Your task to perform on an android device: Search for Mexican restaurants on Maps Image 0: 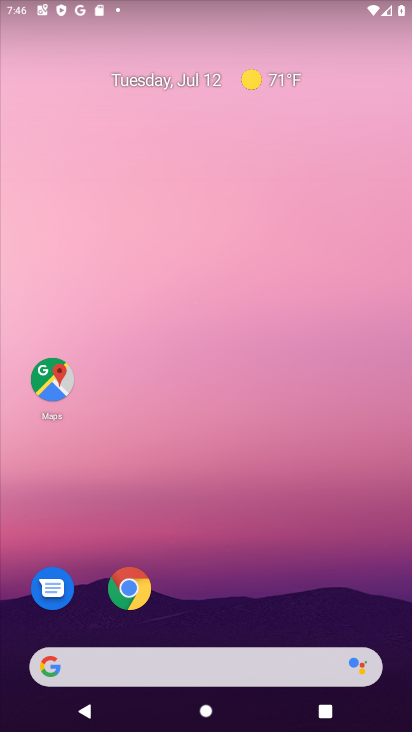
Step 0: click (43, 388)
Your task to perform on an android device: Search for Mexican restaurants on Maps Image 1: 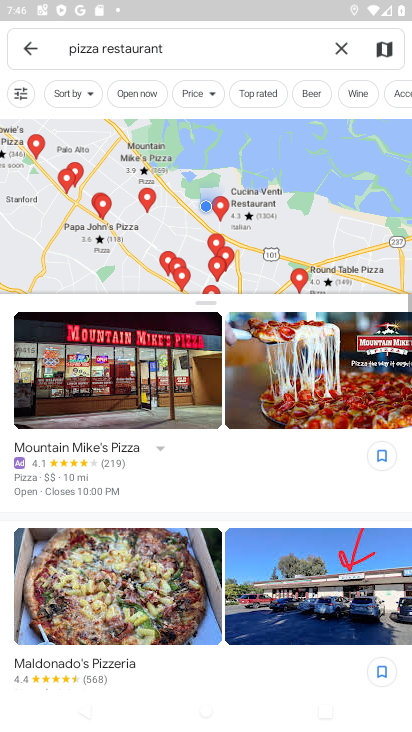
Step 1: click (339, 48)
Your task to perform on an android device: Search for Mexican restaurants on Maps Image 2: 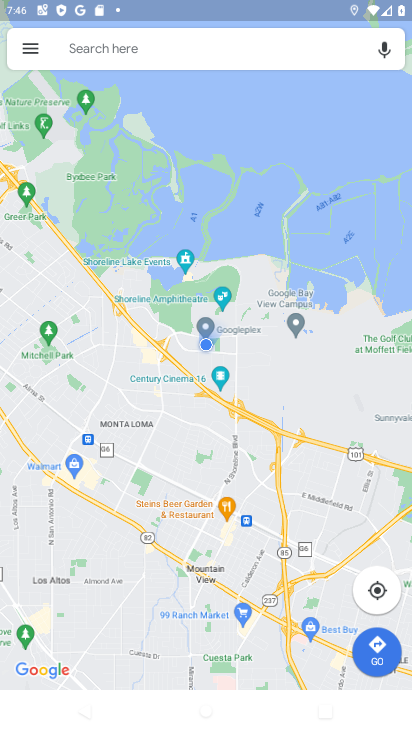
Step 2: click (89, 46)
Your task to perform on an android device: Search for Mexican restaurants on Maps Image 3: 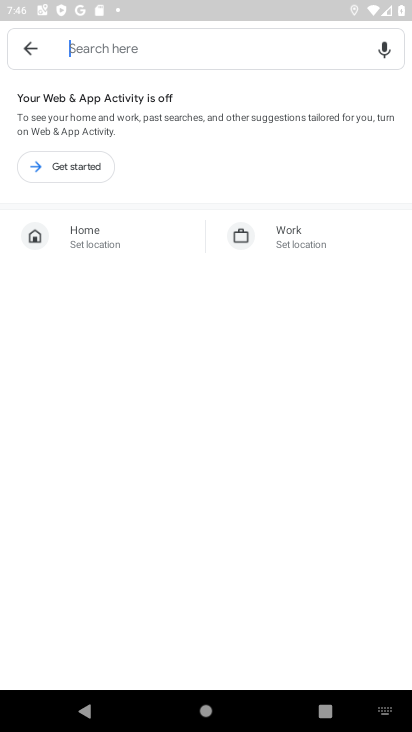
Step 3: type "Mexican restaurants"
Your task to perform on an android device: Search for Mexican restaurants on Maps Image 4: 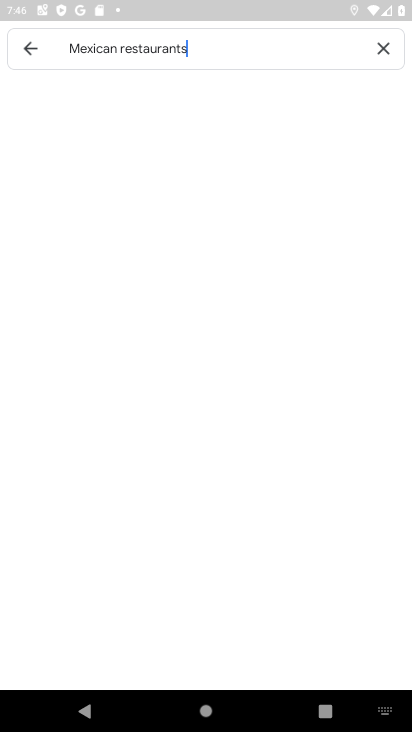
Step 4: type ""
Your task to perform on an android device: Search for Mexican restaurants on Maps Image 5: 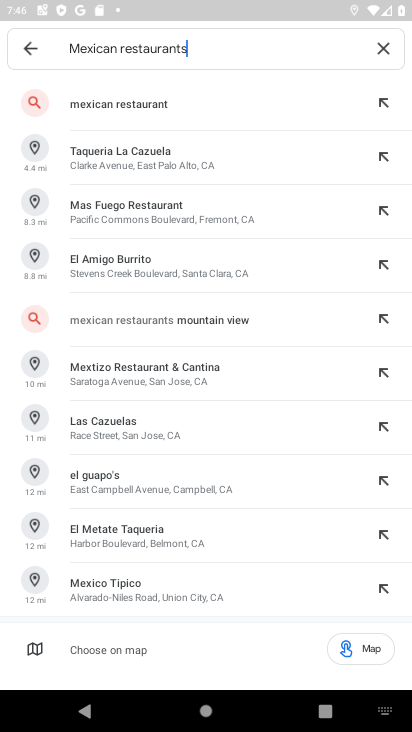
Step 5: click (105, 109)
Your task to perform on an android device: Search for Mexican restaurants on Maps Image 6: 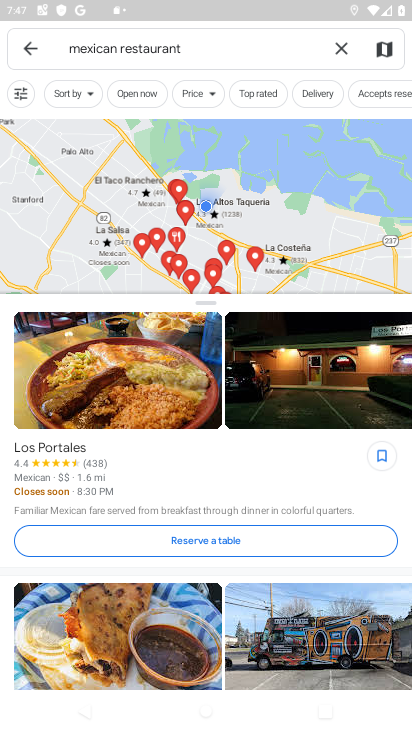
Step 6: task complete